Your task to perform on an android device: Go to notification settings Image 0: 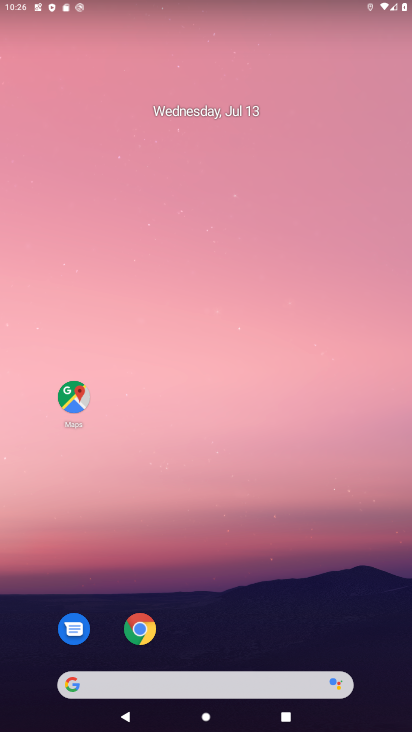
Step 0: drag from (217, 646) to (233, 0)
Your task to perform on an android device: Go to notification settings Image 1: 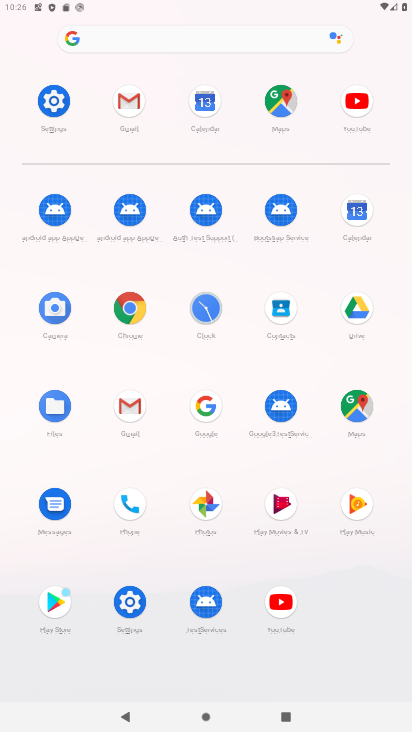
Step 1: click (52, 94)
Your task to perform on an android device: Go to notification settings Image 2: 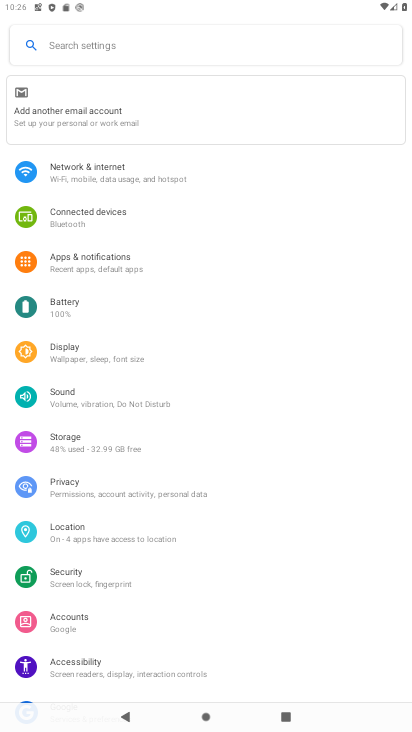
Step 2: click (153, 257)
Your task to perform on an android device: Go to notification settings Image 3: 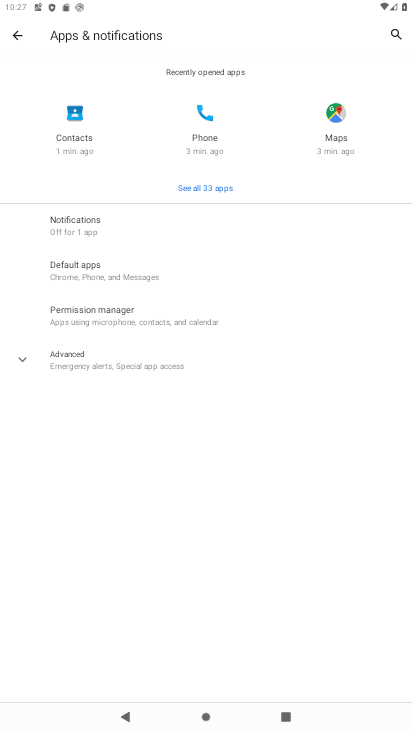
Step 3: click (107, 221)
Your task to perform on an android device: Go to notification settings Image 4: 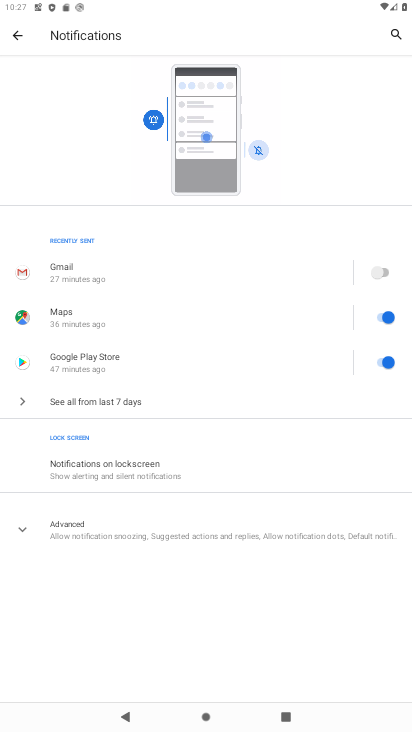
Step 4: click (25, 526)
Your task to perform on an android device: Go to notification settings Image 5: 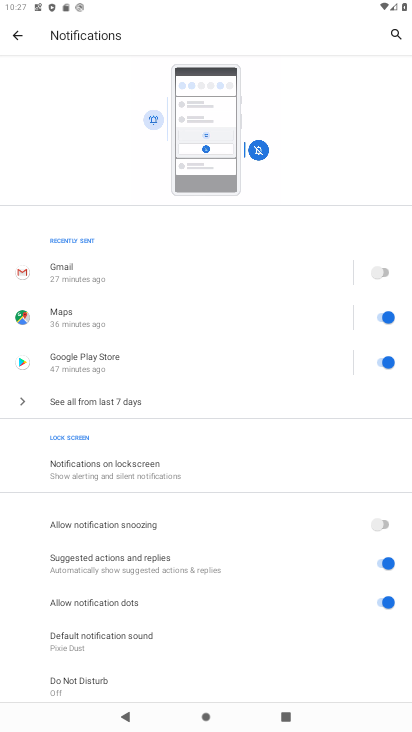
Step 5: task complete